Your task to perform on an android device: Search for Italian restaurants on Maps Image 0: 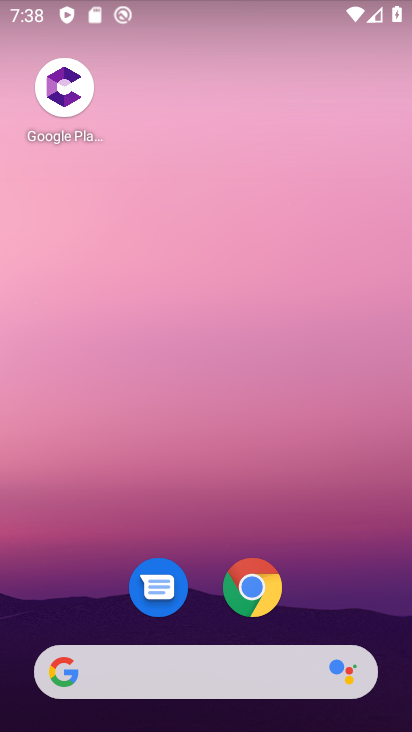
Step 0: drag from (343, 575) to (280, 67)
Your task to perform on an android device: Search for Italian restaurants on Maps Image 1: 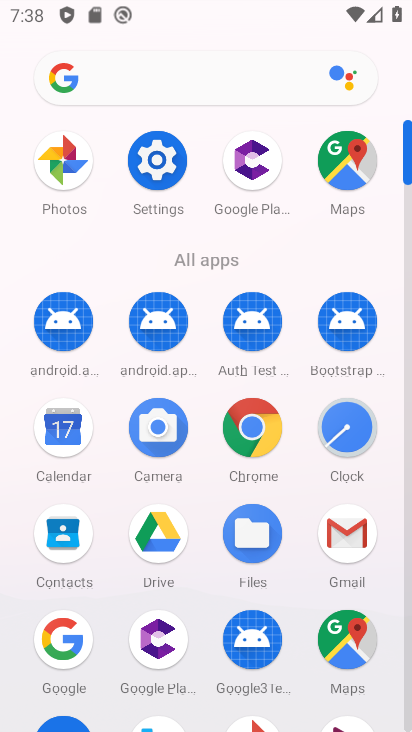
Step 1: click (340, 654)
Your task to perform on an android device: Search for Italian restaurants on Maps Image 2: 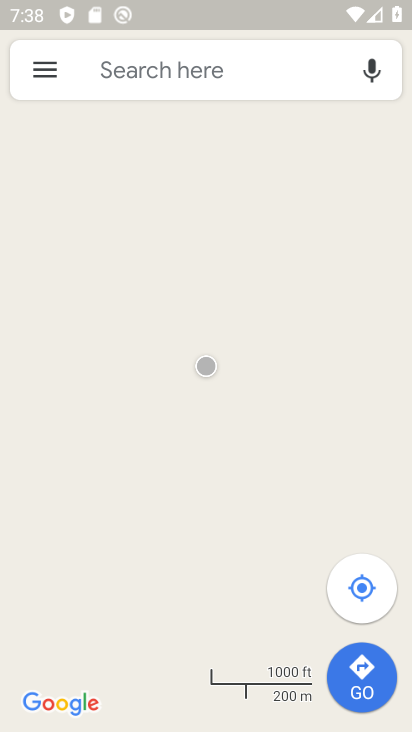
Step 2: click (240, 67)
Your task to perform on an android device: Search for Italian restaurants on Maps Image 3: 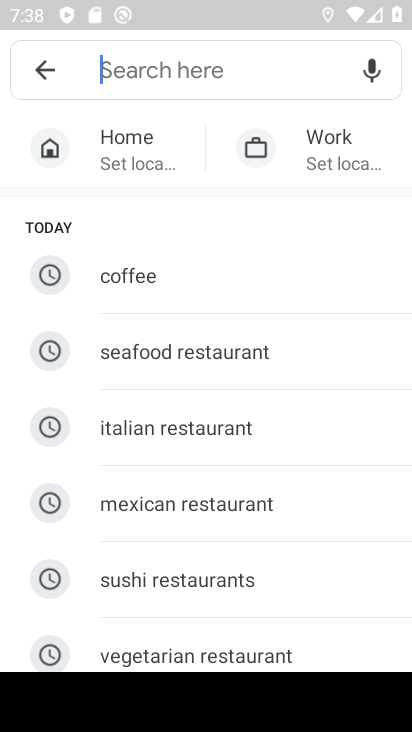
Step 3: type "seafood restaurants"
Your task to perform on an android device: Search for Italian restaurants on Maps Image 4: 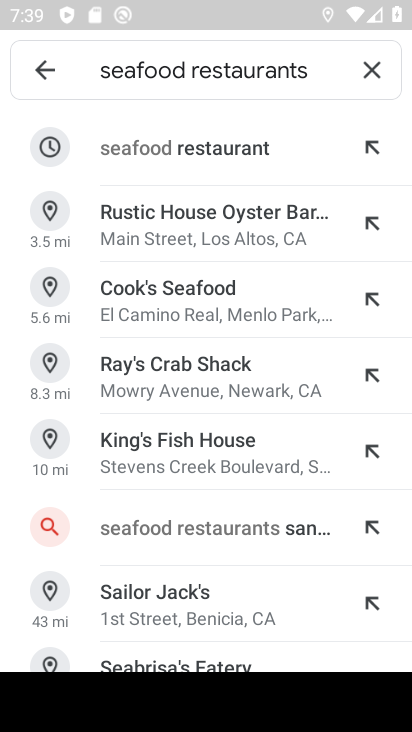
Step 4: press enter
Your task to perform on an android device: Search for Italian restaurants on Maps Image 5: 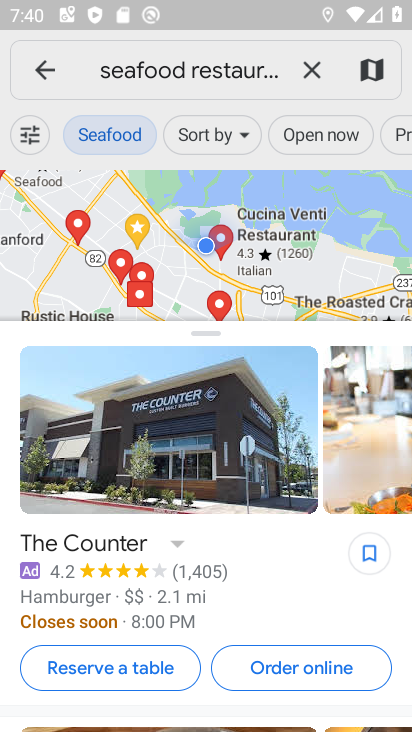
Step 5: task complete